Your task to perform on an android device: see sites visited before in the chrome app Image 0: 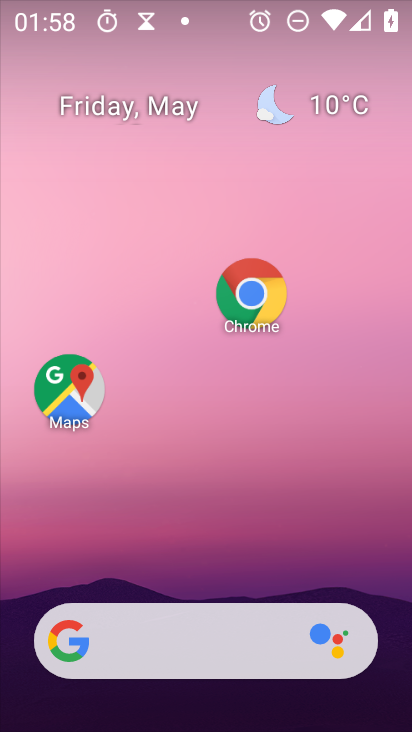
Step 0: click (240, 300)
Your task to perform on an android device: see sites visited before in the chrome app Image 1: 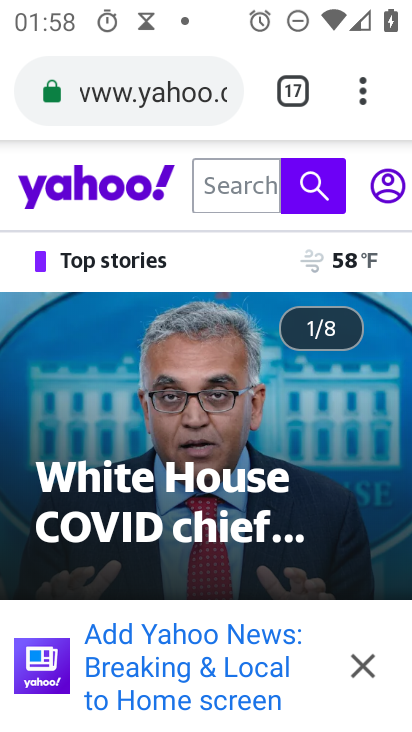
Step 1: task complete